Your task to perform on an android device: manage bookmarks in the chrome app Image 0: 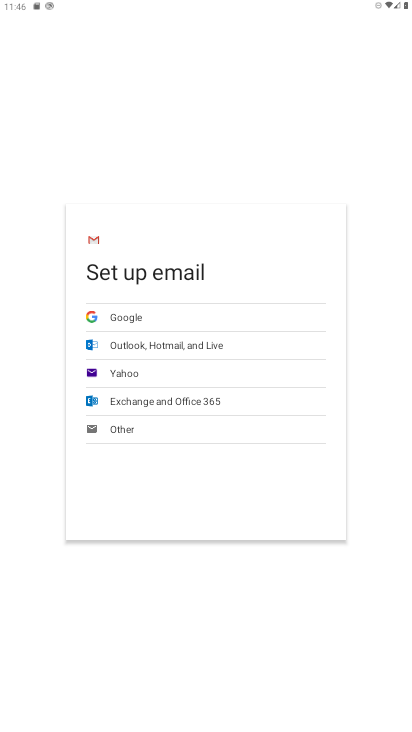
Step 0: press home button
Your task to perform on an android device: manage bookmarks in the chrome app Image 1: 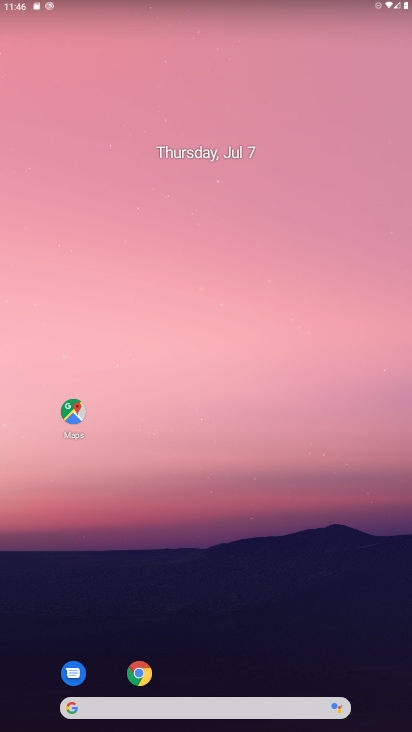
Step 1: click (140, 667)
Your task to perform on an android device: manage bookmarks in the chrome app Image 2: 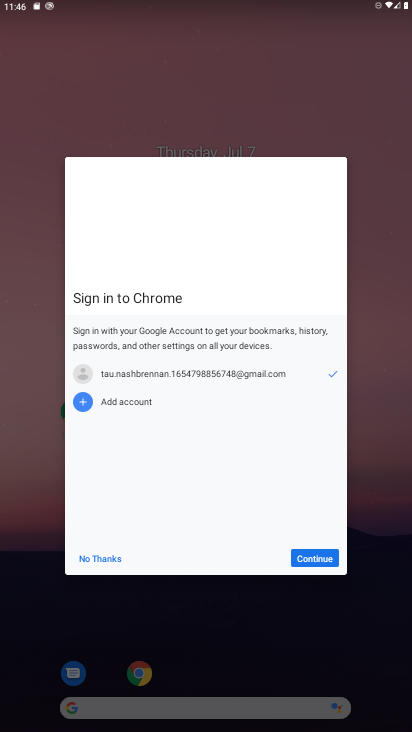
Step 2: click (315, 561)
Your task to perform on an android device: manage bookmarks in the chrome app Image 3: 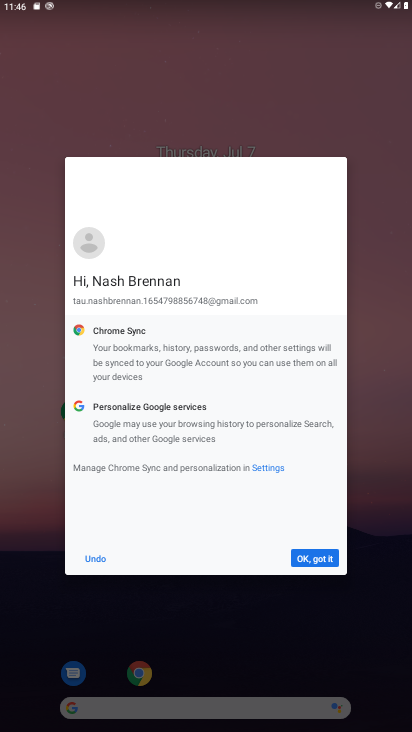
Step 3: click (315, 561)
Your task to perform on an android device: manage bookmarks in the chrome app Image 4: 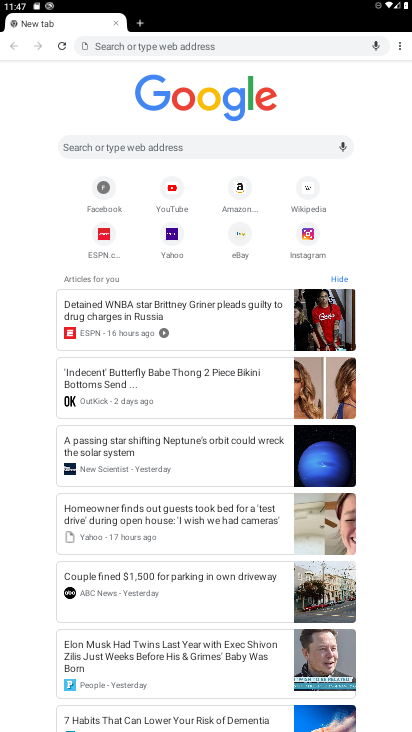
Step 4: click (396, 44)
Your task to perform on an android device: manage bookmarks in the chrome app Image 5: 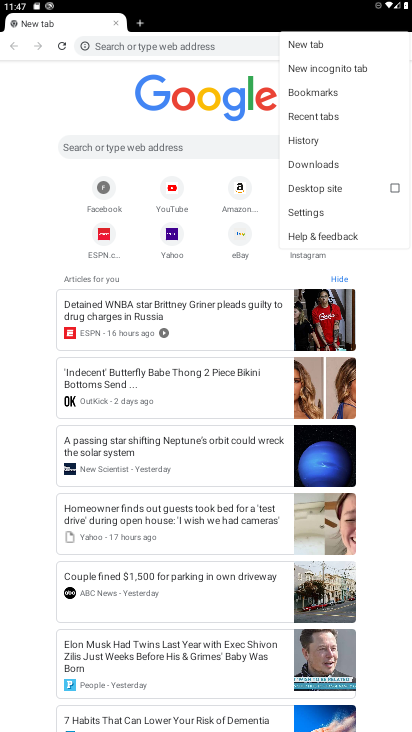
Step 5: click (315, 86)
Your task to perform on an android device: manage bookmarks in the chrome app Image 6: 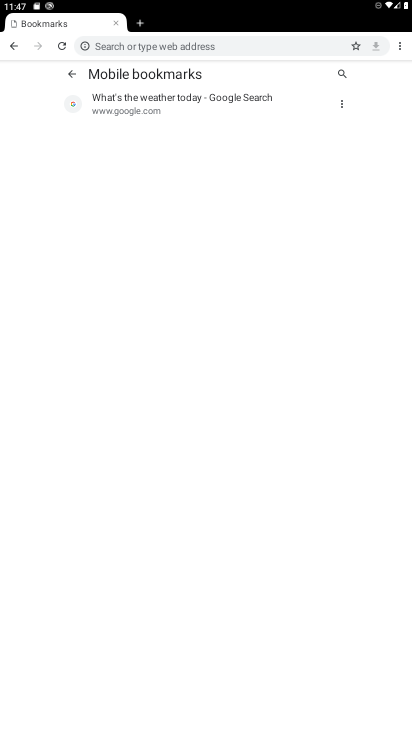
Step 6: click (344, 105)
Your task to perform on an android device: manage bookmarks in the chrome app Image 7: 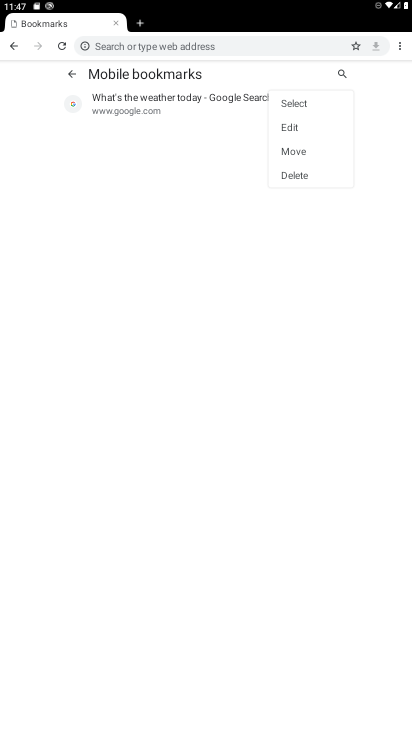
Step 7: click (187, 194)
Your task to perform on an android device: manage bookmarks in the chrome app Image 8: 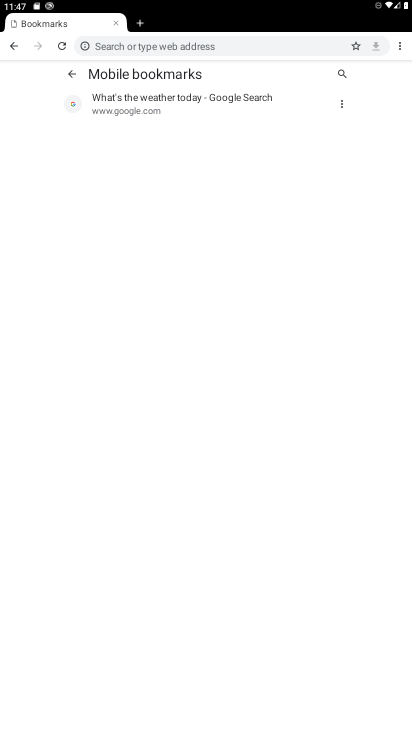
Step 8: click (340, 100)
Your task to perform on an android device: manage bookmarks in the chrome app Image 9: 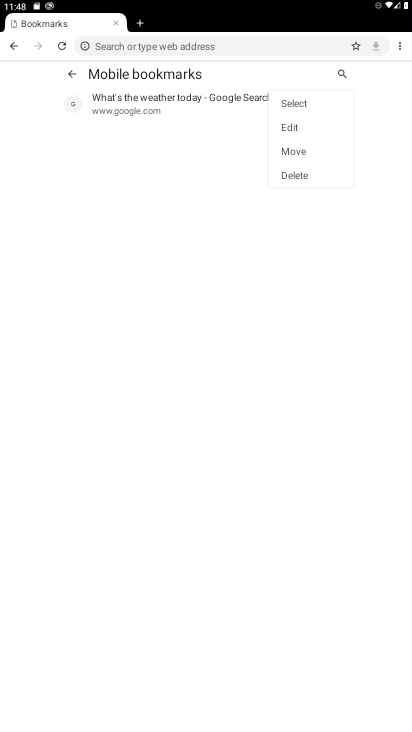
Step 9: click (296, 177)
Your task to perform on an android device: manage bookmarks in the chrome app Image 10: 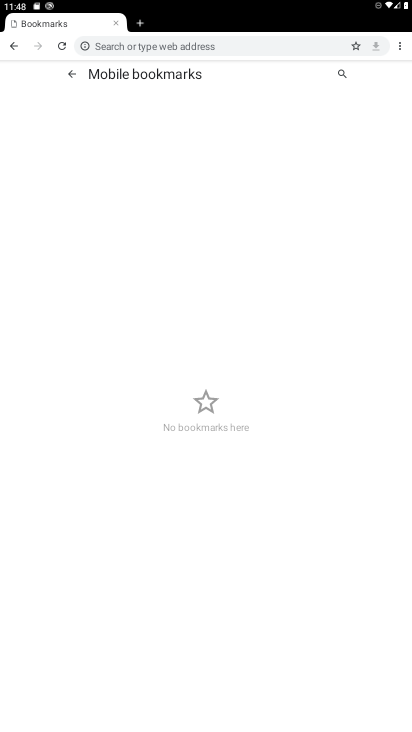
Step 10: task complete